Your task to perform on an android device: Open ESPN.com Image 0: 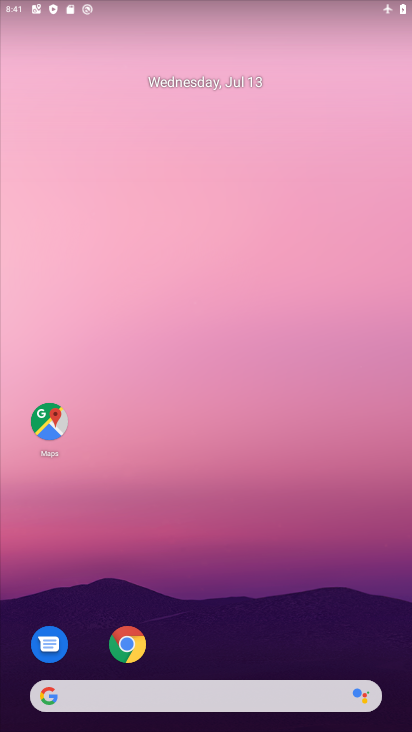
Step 0: click (133, 647)
Your task to perform on an android device: Open ESPN.com Image 1: 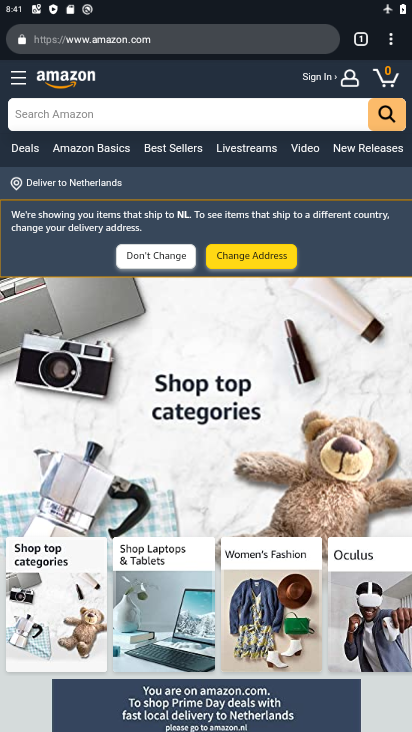
Step 1: click (393, 44)
Your task to perform on an android device: Open ESPN.com Image 2: 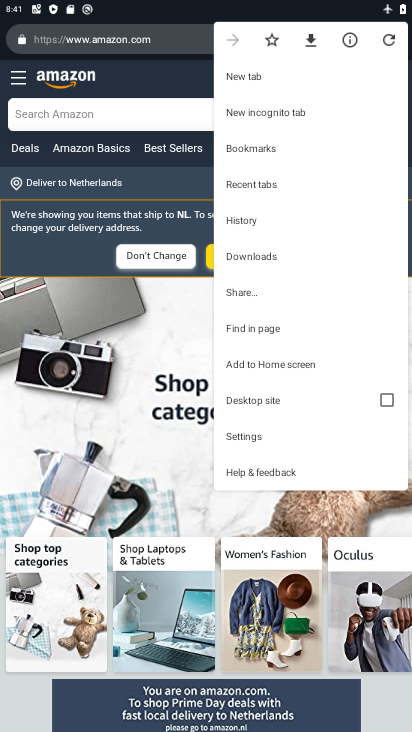
Step 2: click (248, 73)
Your task to perform on an android device: Open ESPN.com Image 3: 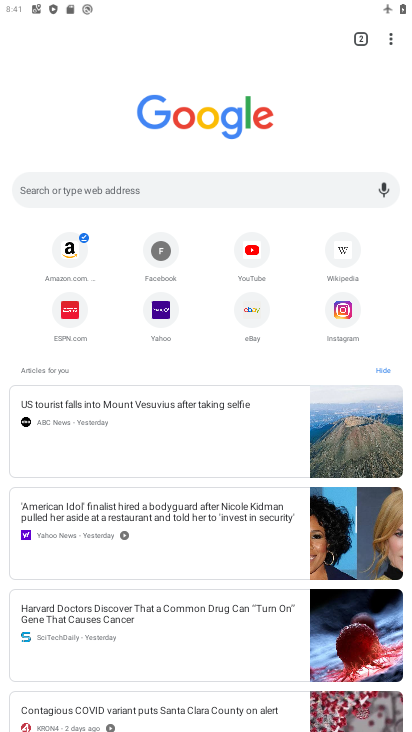
Step 3: click (65, 317)
Your task to perform on an android device: Open ESPN.com Image 4: 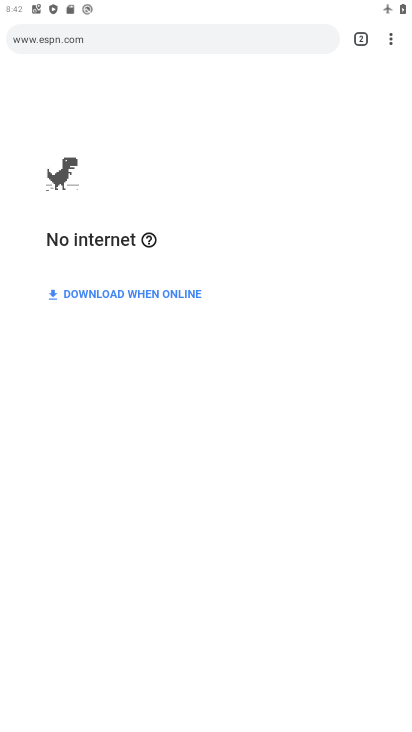
Step 4: task complete